Your task to perform on an android device: Open wifi settings Image 0: 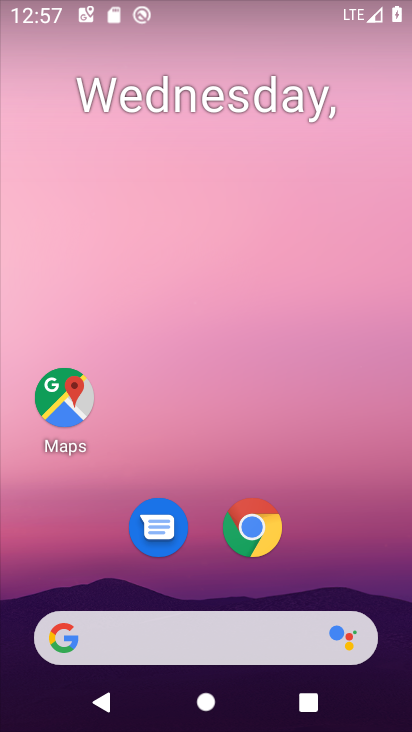
Step 0: drag from (212, 627) to (174, 57)
Your task to perform on an android device: Open wifi settings Image 1: 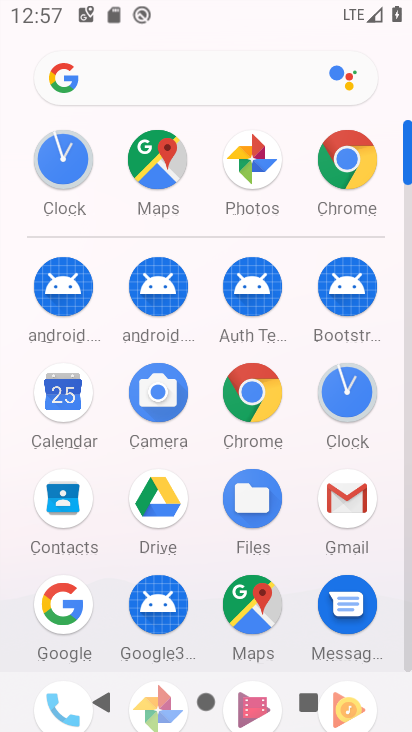
Step 1: drag from (287, 639) to (291, 307)
Your task to perform on an android device: Open wifi settings Image 2: 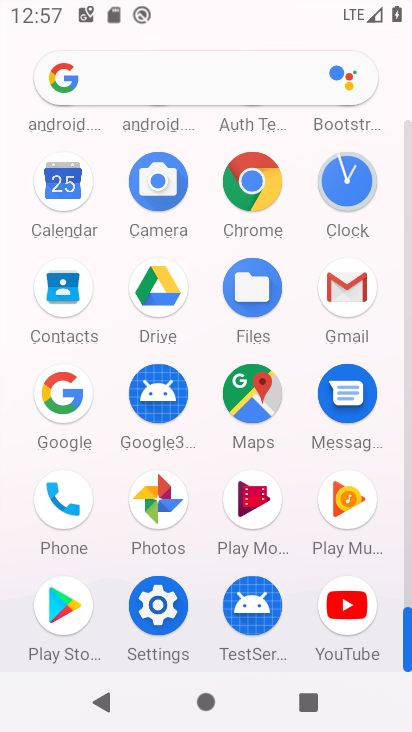
Step 2: click (158, 594)
Your task to perform on an android device: Open wifi settings Image 3: 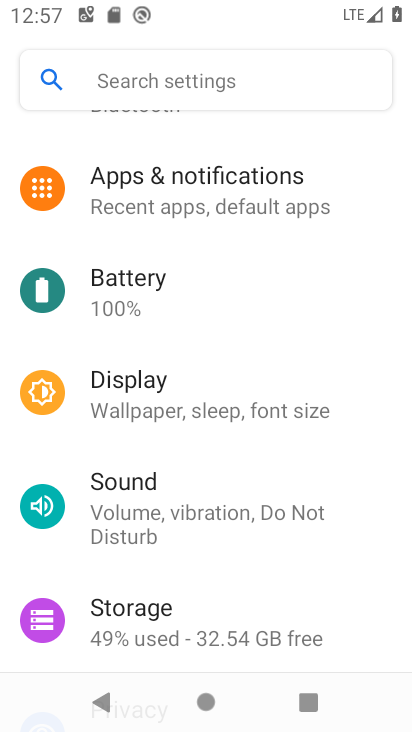
Step 3: drag from (223, 200) to (234, 595)
Your task to perform on an android device: Open wifi settings Image 4: 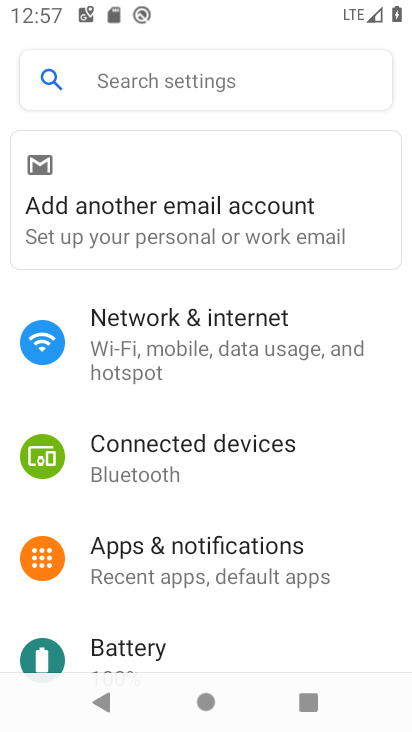
Step 4: click (202, 347)
Your task to perform on an android device: Open wifi settings Image 5: 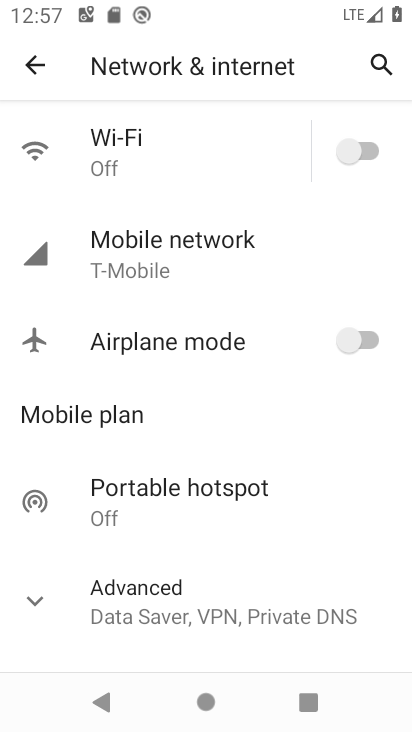
Step 5: click (201, 143)
Your task to perform on an android device: Open wifi settings Image 6: 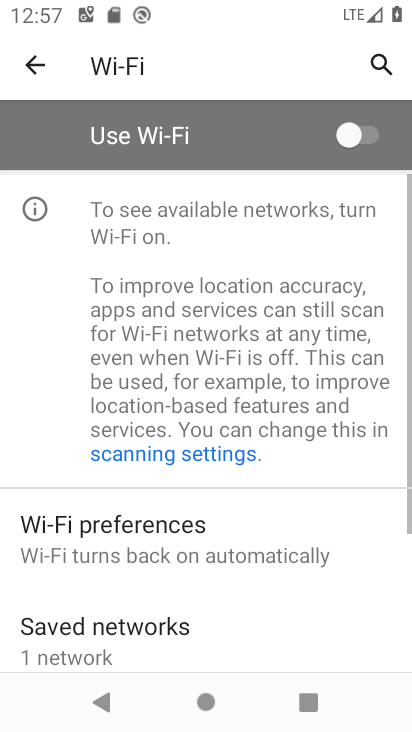
Step 6: task complete